Your task to perform on an android device: set an alarm Image 0: 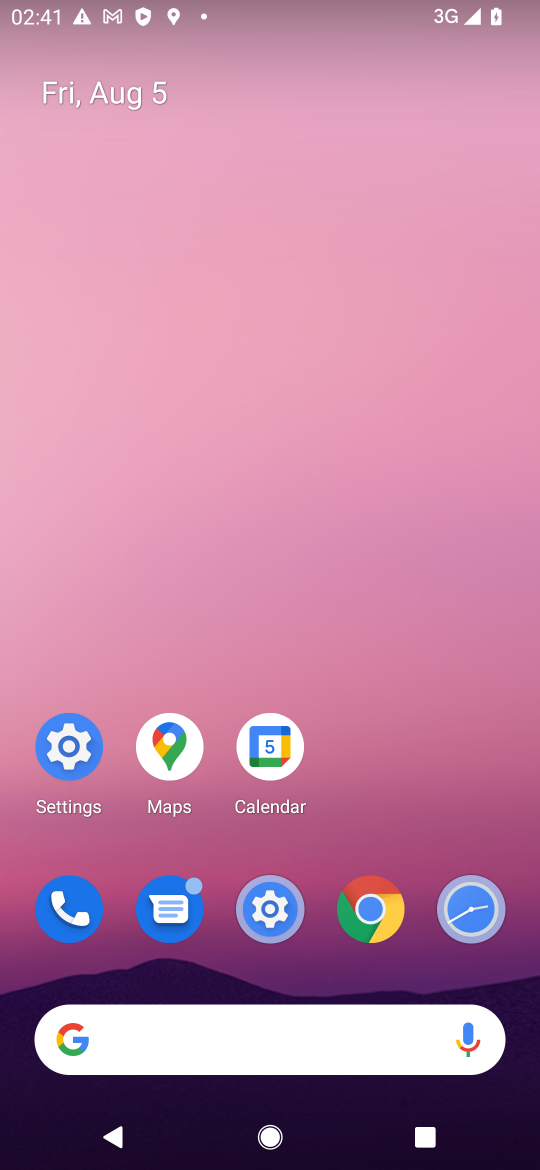
Step 0: click (464, 908)
Your task to perform on an android device: set an alarm Image 1: 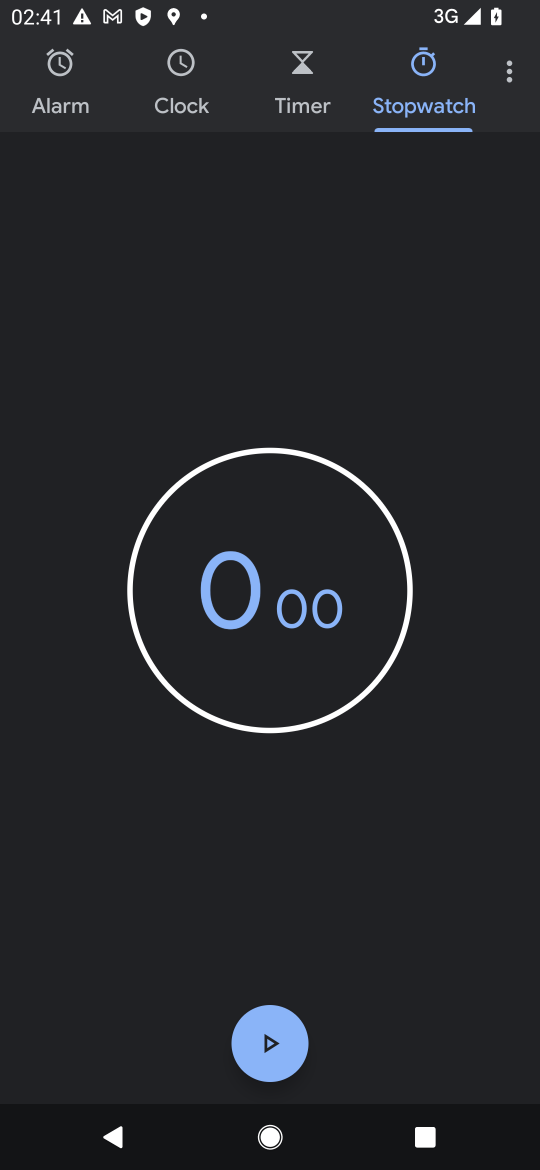
Step 1: click (56, 67)
Your task to perform on an android device: set an alarm Image 2: 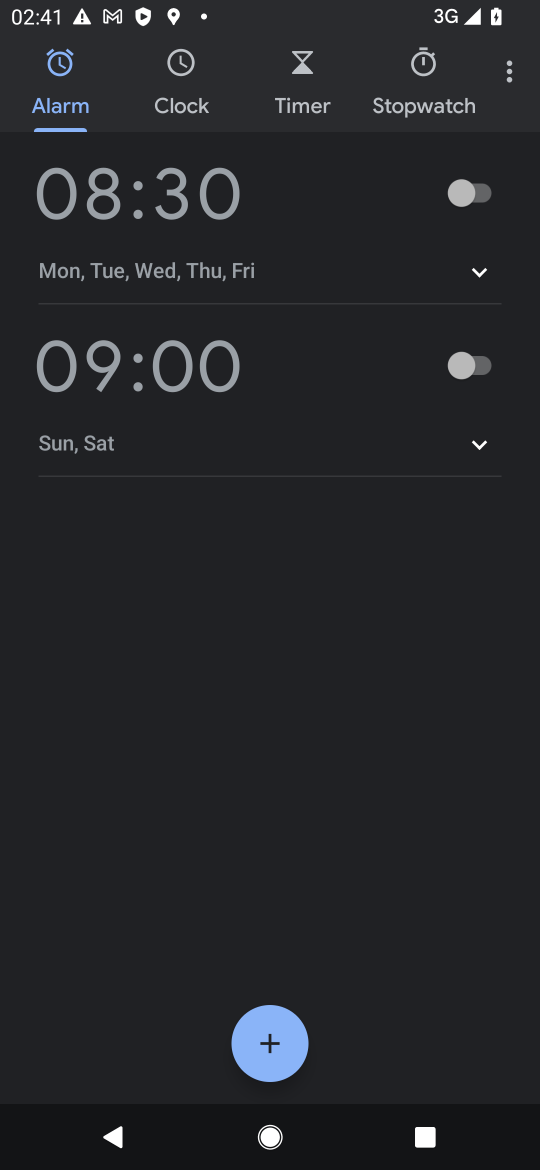
Step 2: click (261, 1046)
Your task to perform on an android device: set an alarm Image 3: 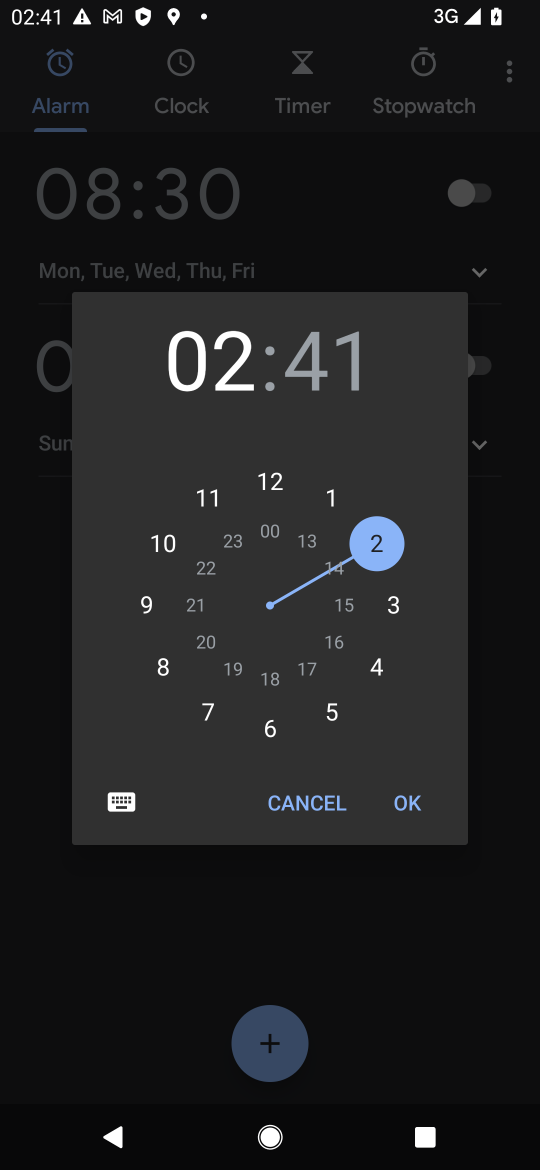
Step 3: click (398, 798)
Your task to perform on an android device: set an alarm Image 4: 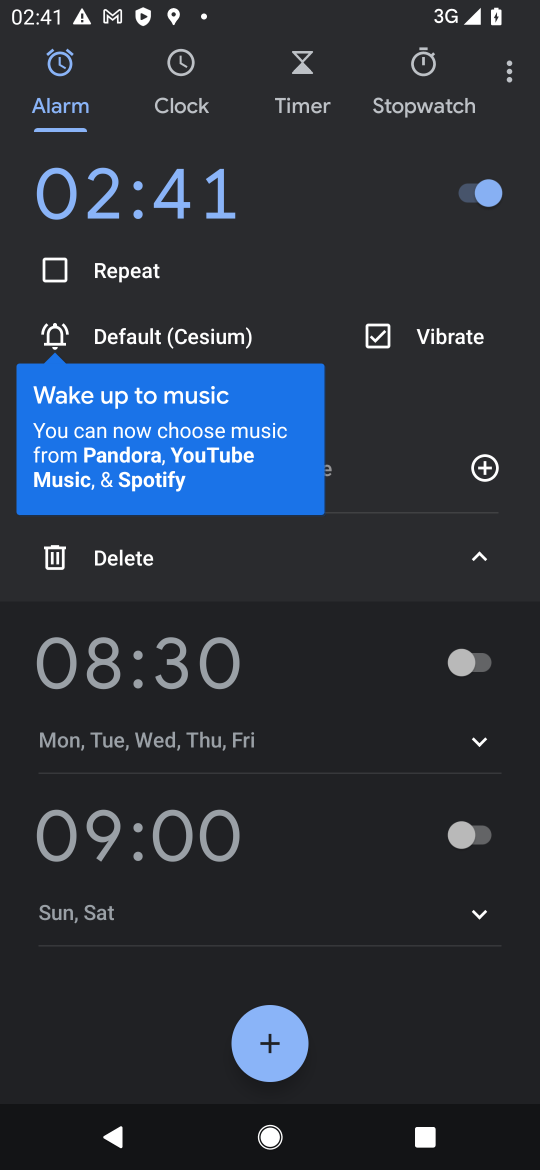
Step 4: task complete